Your task to perform on an android device: Open ESPN.com Image 0: 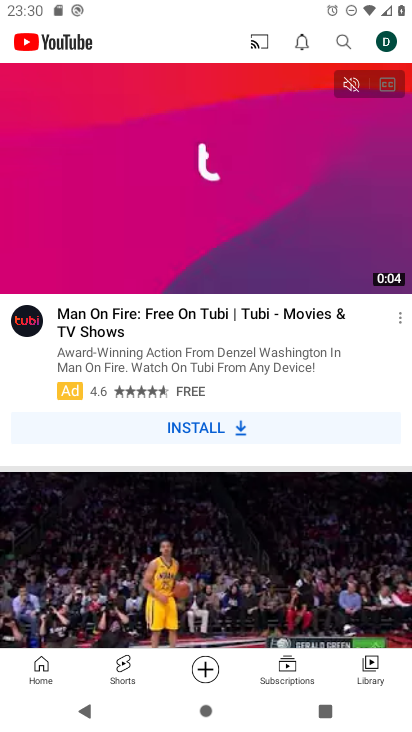
Step 0: press home button
Your task to perform on an android device: Open ESPN.com Image 1: 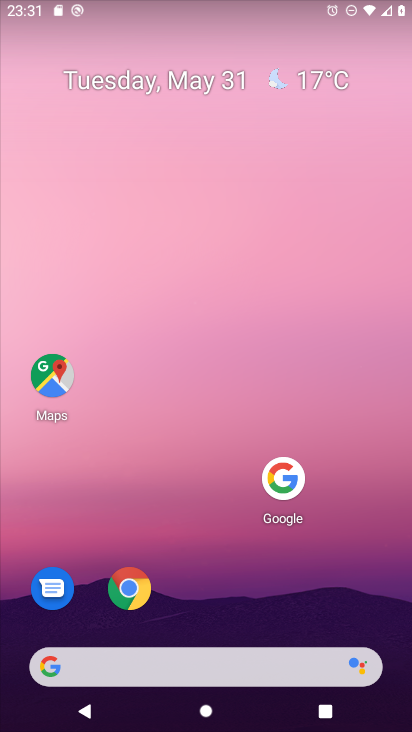
Step 1: click (130, 584)
Your task to perform on an android device: Open ESPN.com Image 2: 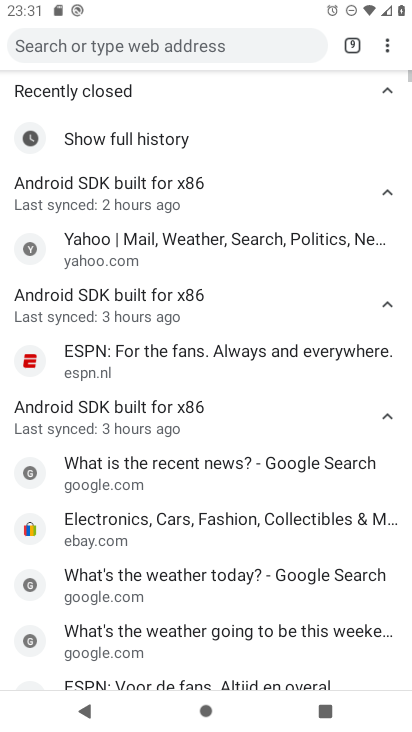
Step 2: drag from (385, 45) to (270, 97)
Your task to perform on an android device: Open ESPN.com Image 3: 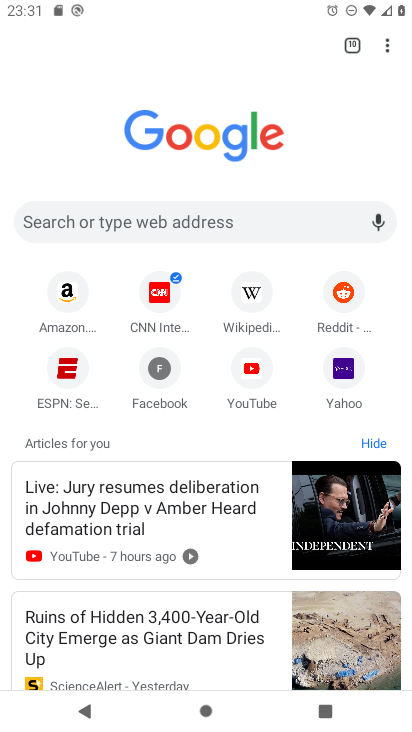
Step 3: click (65, 369)
Your task to perform on an android device: Open ESPN.com Image 4: 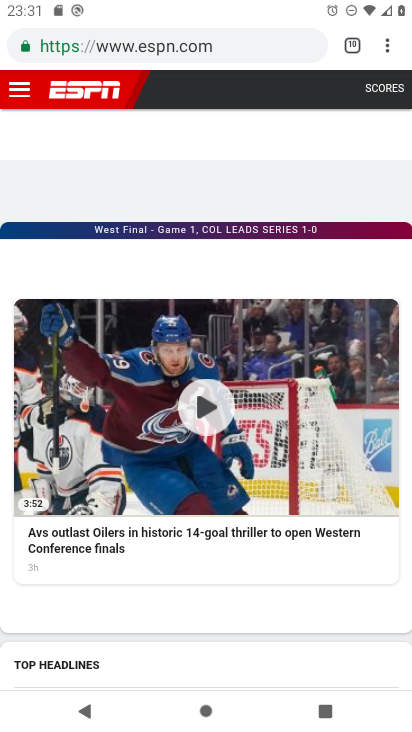
Step 4: task complete